Your task to perform on an android device: change the clock display to analog Image 0: 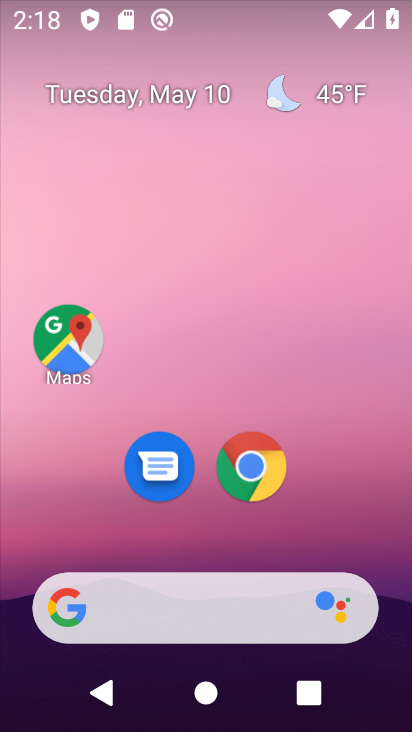
Step 0: drag from (399, 354) to (373, 132)
Your task to perform on an android device: change the clock display to analog Image 1: 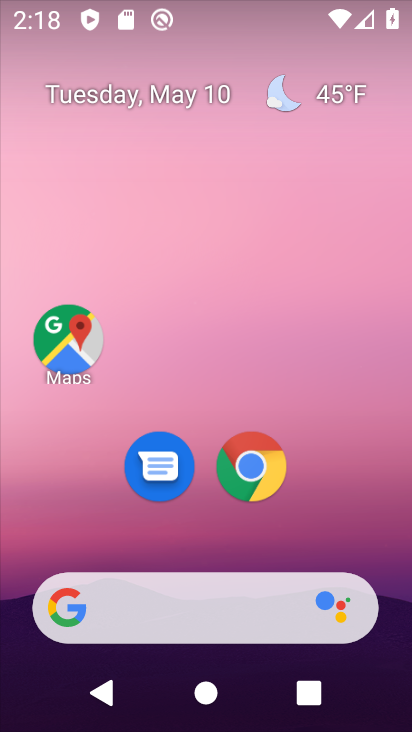
Step 1: drag from (393, 613) to (362, 236)
Your task to perform on an android device: change the clock display to analog Image 2: 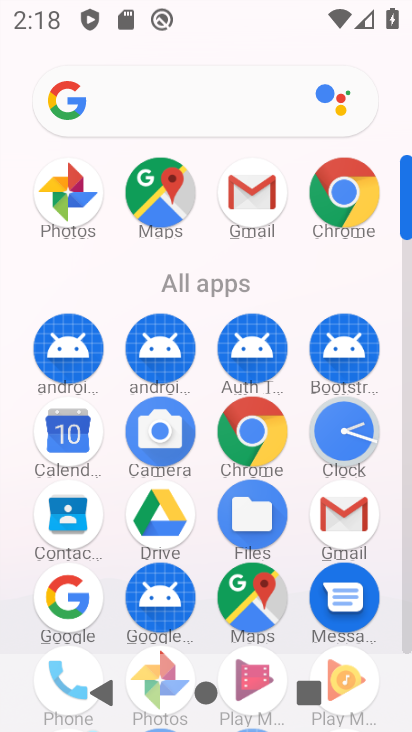
Step 2: click (335, 435)
Your task to perform on an android device: change the clock display to analog Image 3: 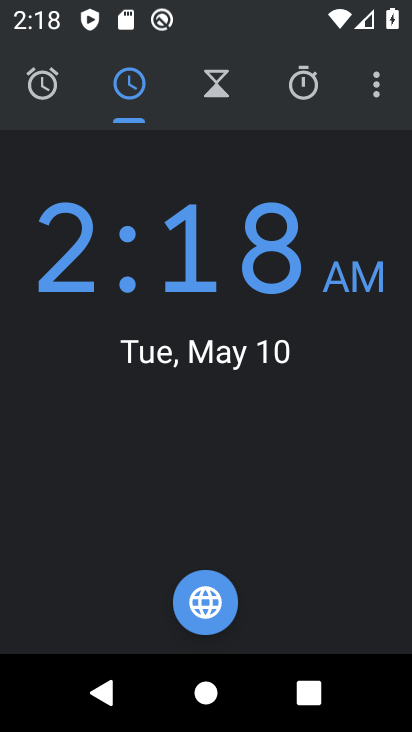
Step 3: click (374, 85)
Your task to perform on an android device: change the clock display to analog Image 4: 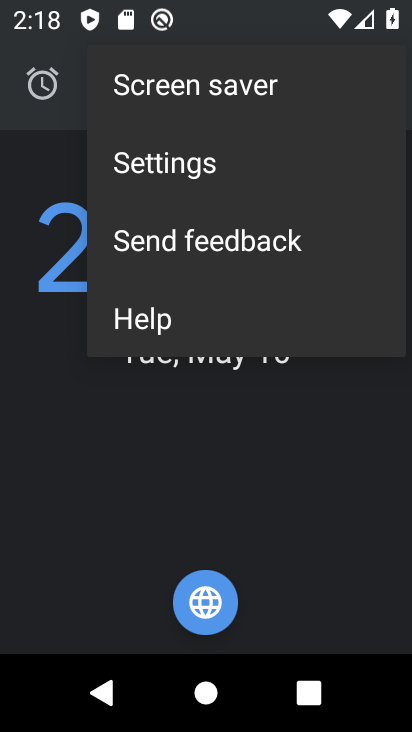
Step 4: click (153, 155)
Your task to perform on an android device: change the clock display to analog Image 5: 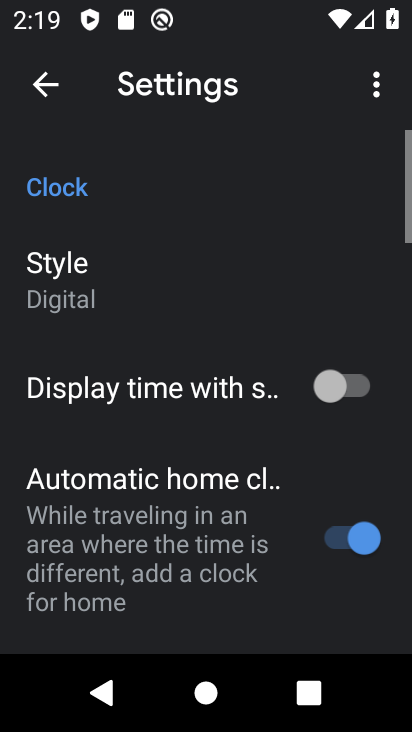
Step 5: click (63, 279)
Your task to perform on an android device: change the clock display to analog Image 6: 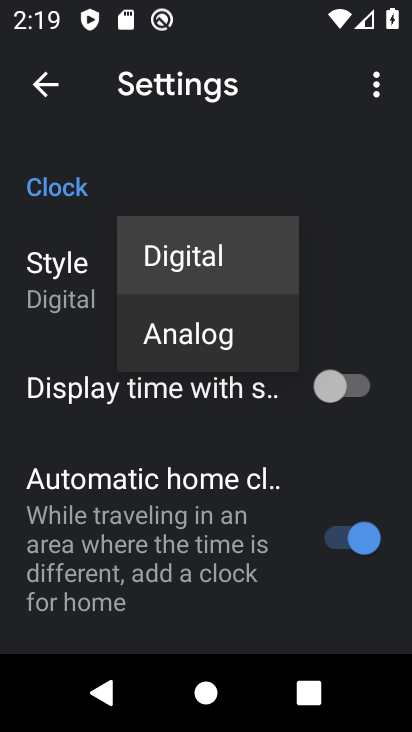
Step 6: click (189, 333)
Your task to perform on an android device: change the clock display to analog Image 7: 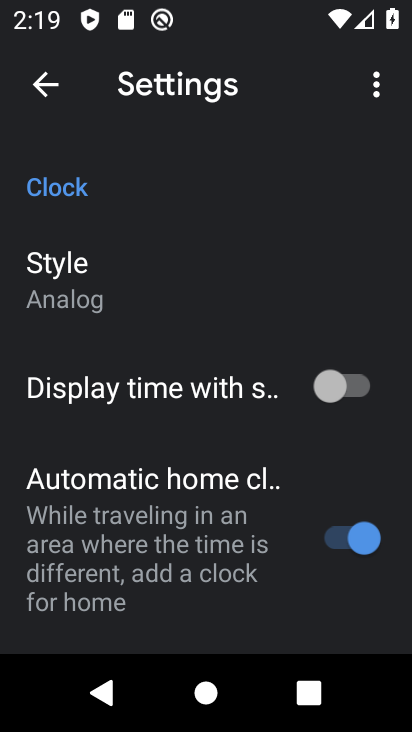
Step 7: task complete